Your task to perform on an android device: choose inbox layout in the gmail app Image 0: 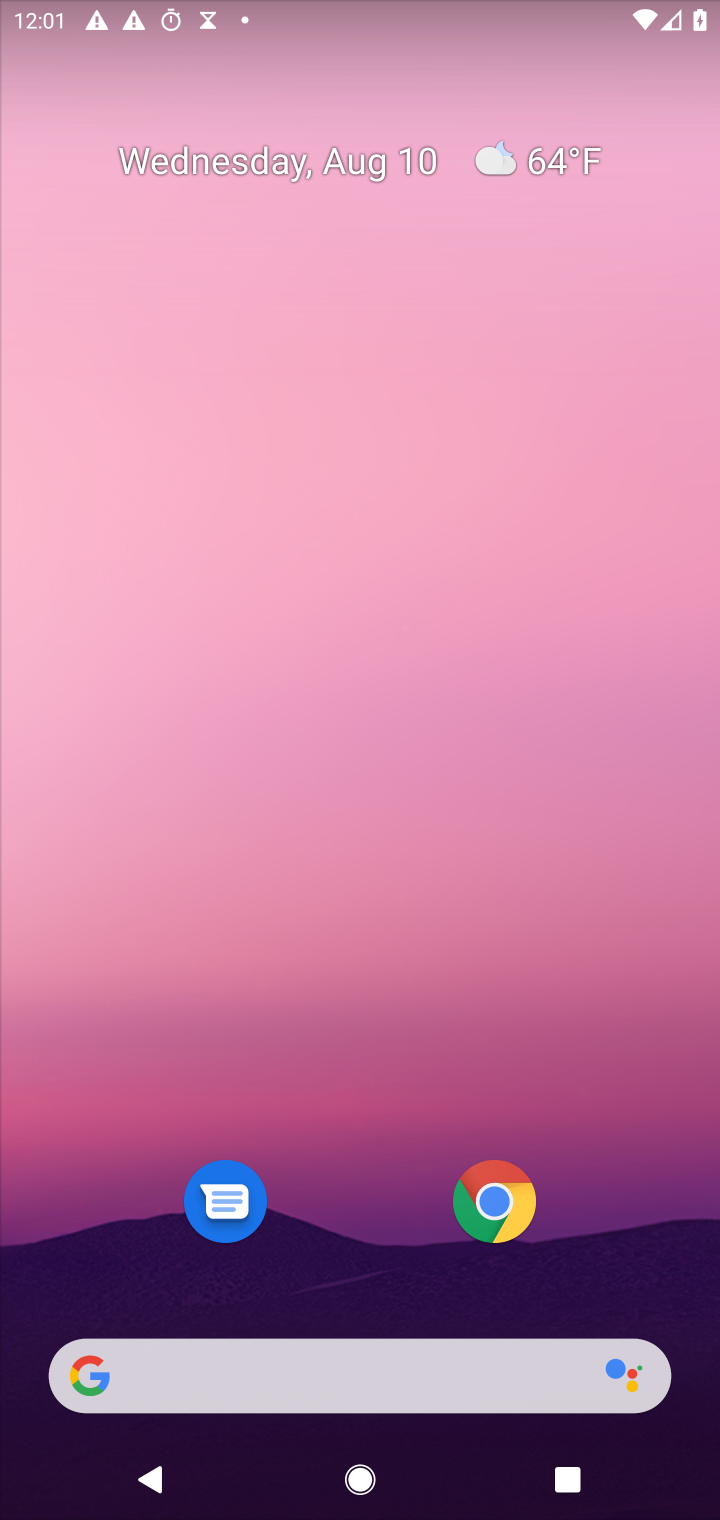
Step 0: press home button
Your task to perform on an android device: choose inbox layout in the gmail app Image 1: 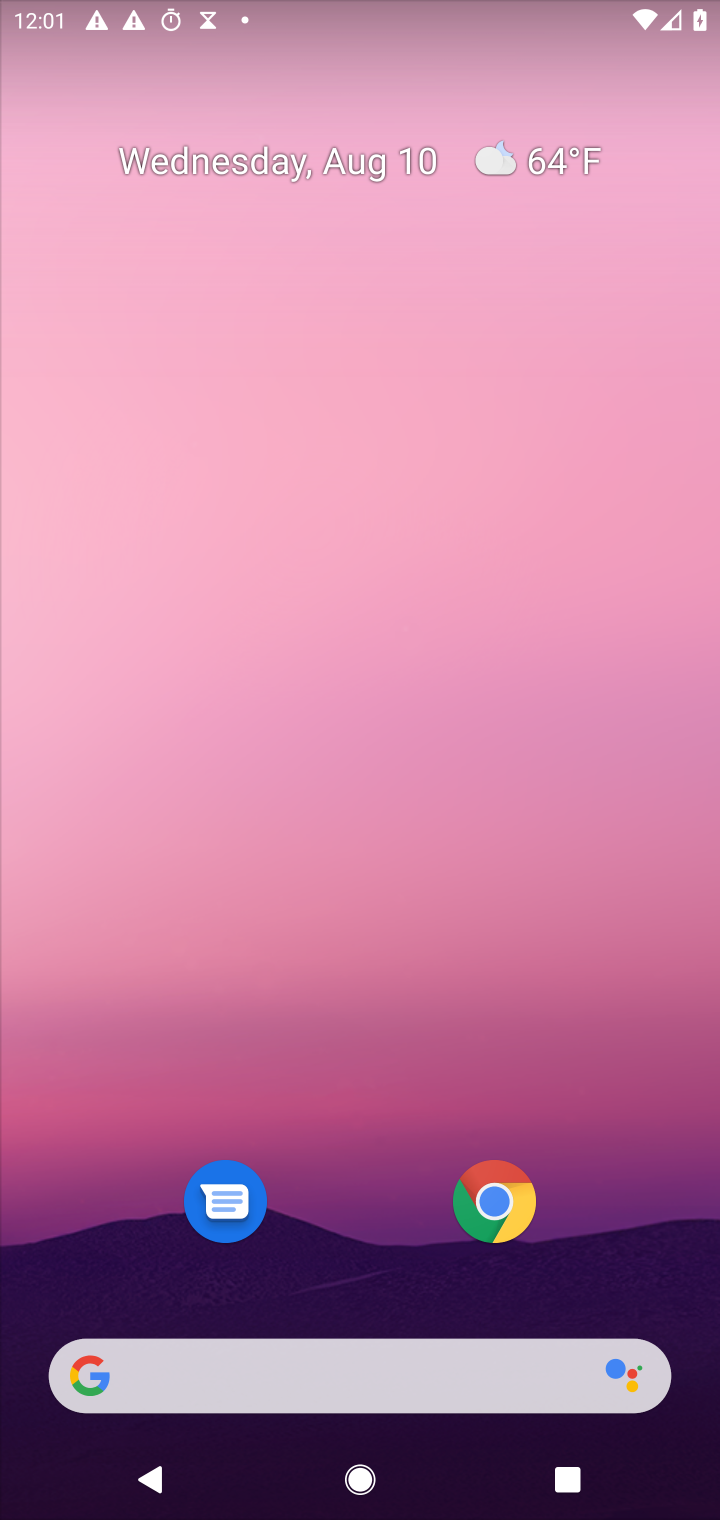
Step 1: drag from (363, 1242) to (337, 127)
Your task to perform on an android device: choose inbox layout in the gmail app Image 2: 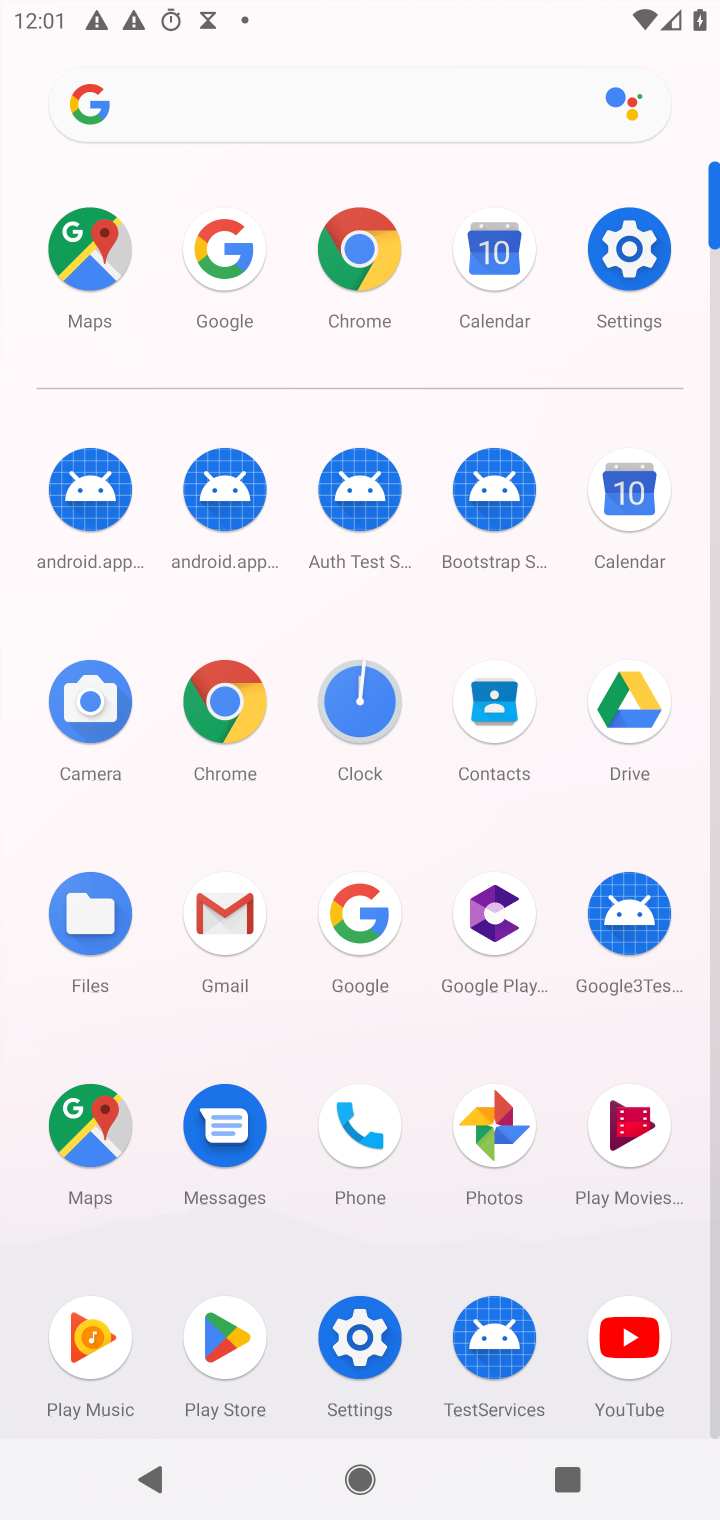
Step 2: click (242, 914)
Your task to perform on an android device: choose inbox layout in the gmail app Image 3: 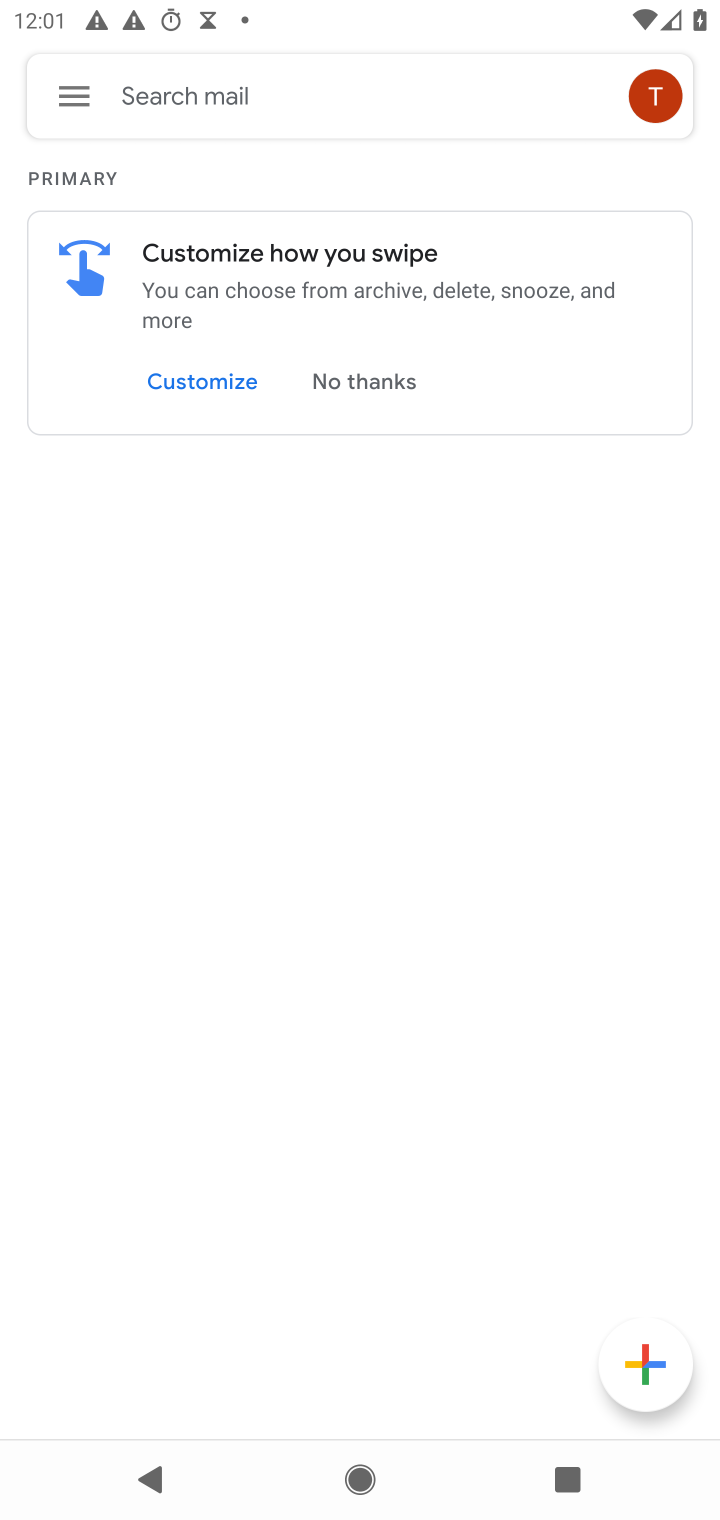
Step 3: click (55, 98)
Your task to perform on an android device: choose inbox layout in the gmail app Image 4: 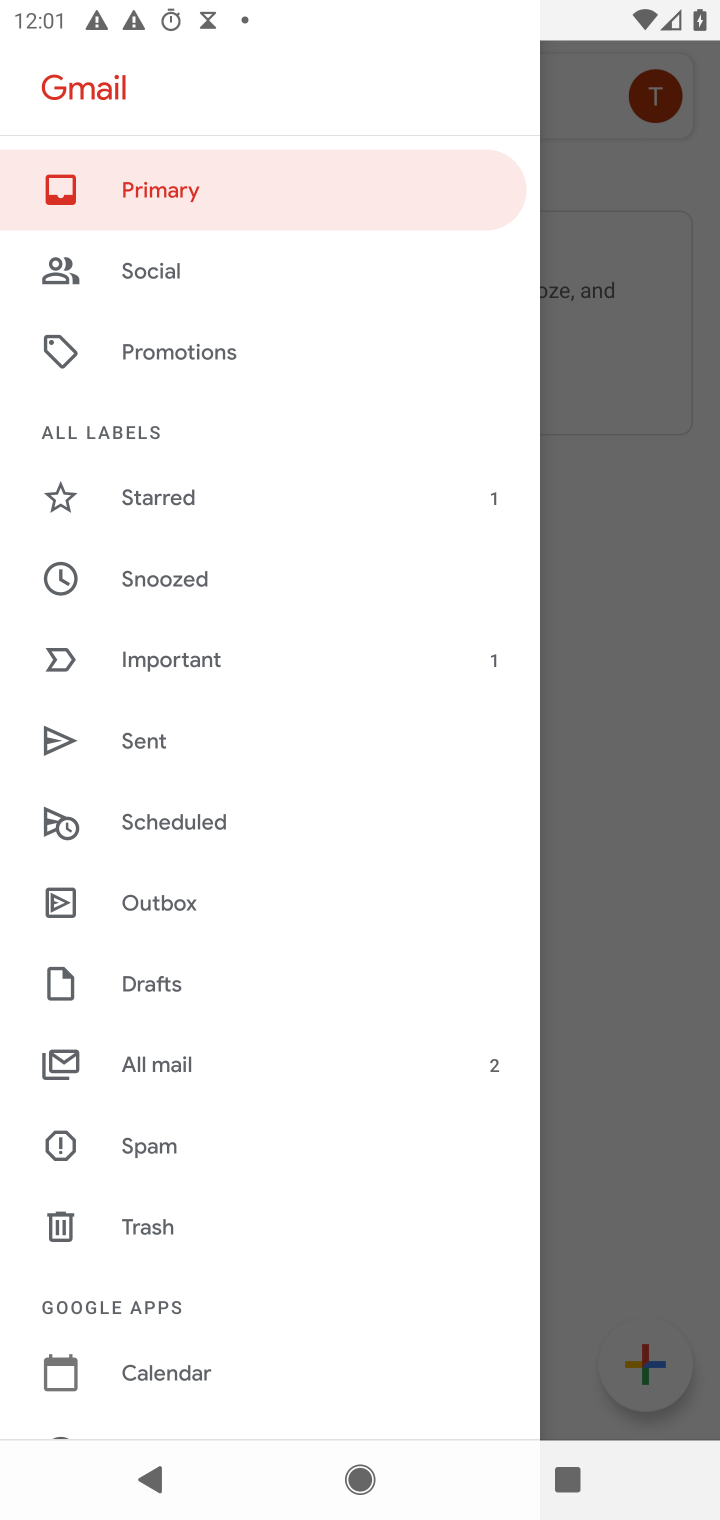
Step 4: drag from (229, 1301) to (292, 302)
Your task to perform on an android device: choose inbox layout in the gmail app Image 5: 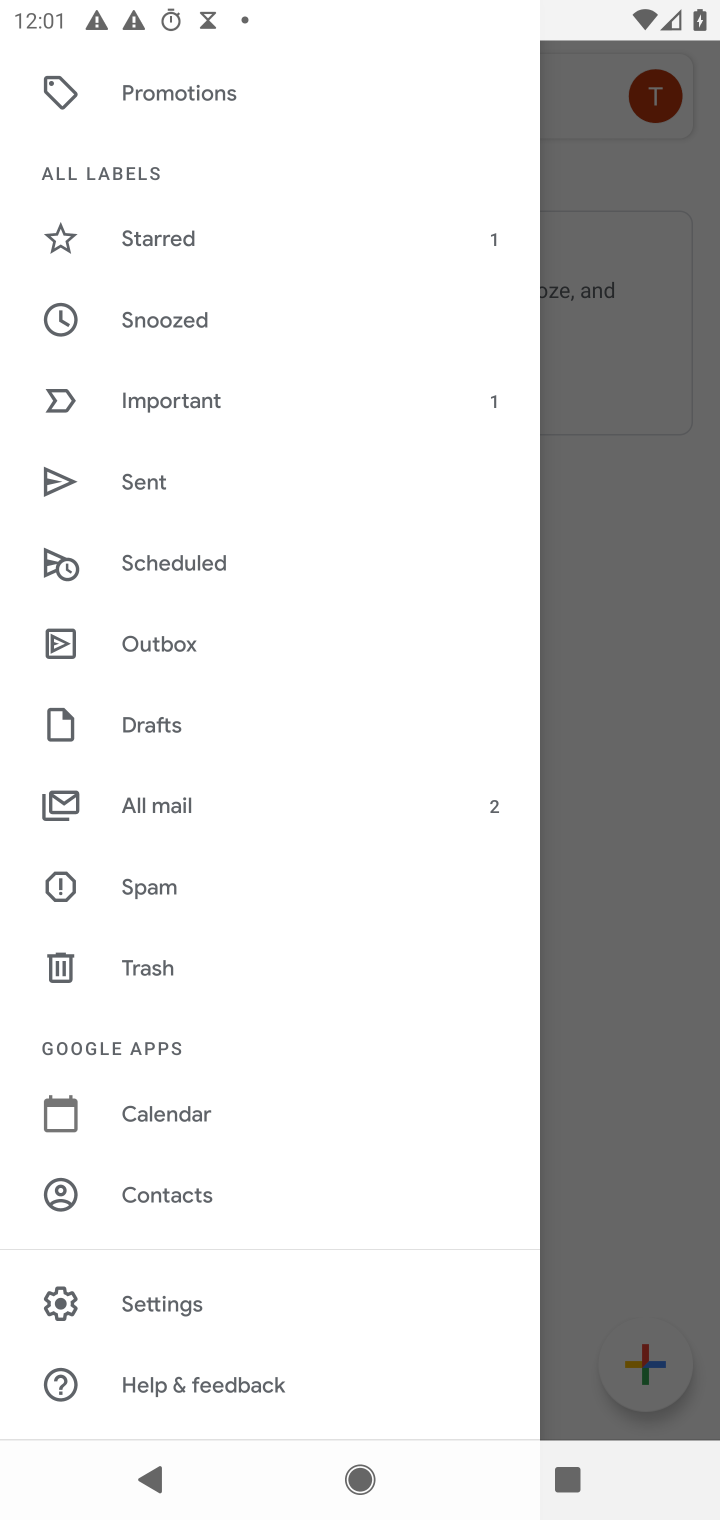
Step 5: click (160, 1307)
Your task to perform on an android device: choose inbox layout in the gmail app Image 6: 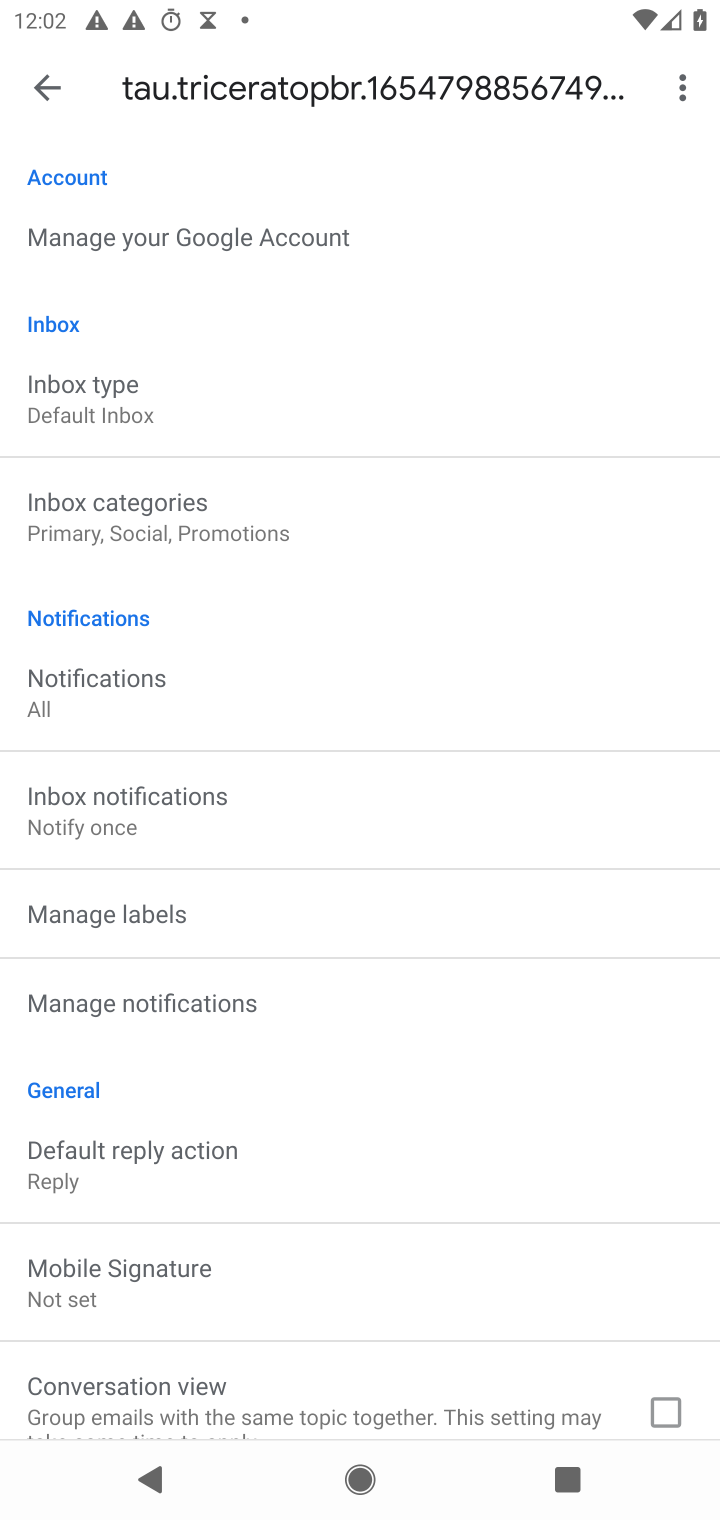
Step 6: click (126, 395)
Your task to perform on an android device: choose inbox layout in the gmail app Image 7: 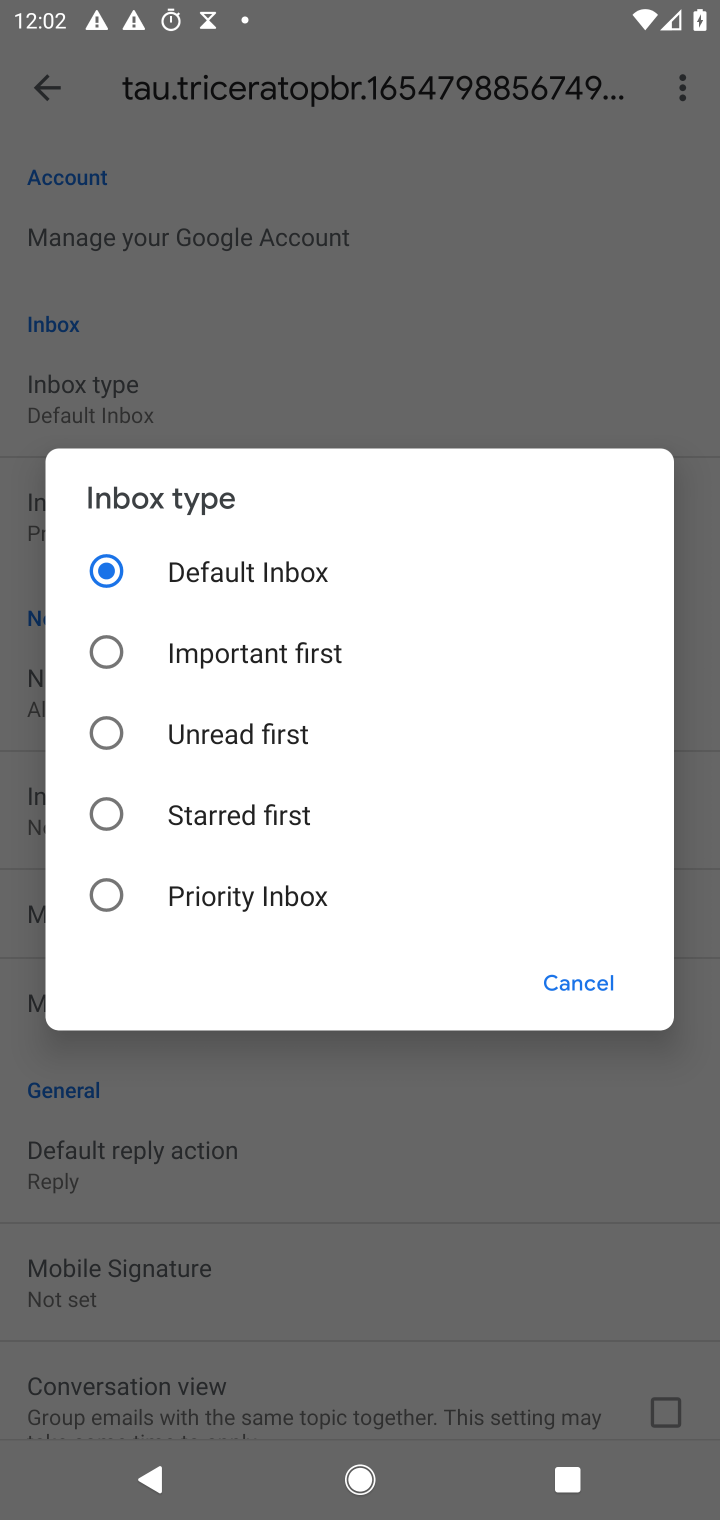
Step 7: task complete